Your task to perform on an android device: Play the last video I watched on Youtube Image 0: 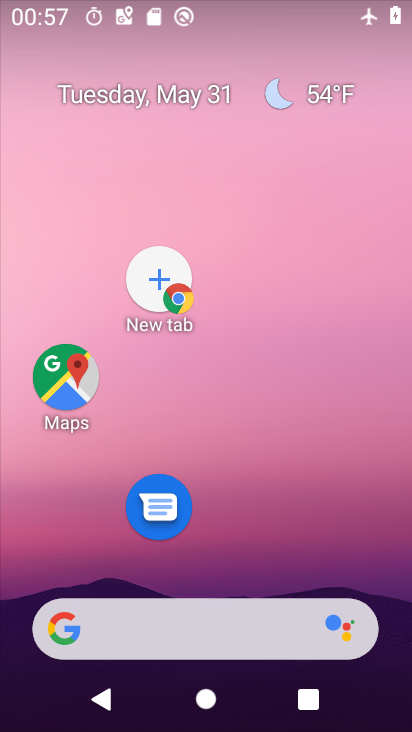
Step 0: drag from (336, 670) to (236, 66)
Your task to perform on an android device: Play the last video I watched on Youtube Image 1: 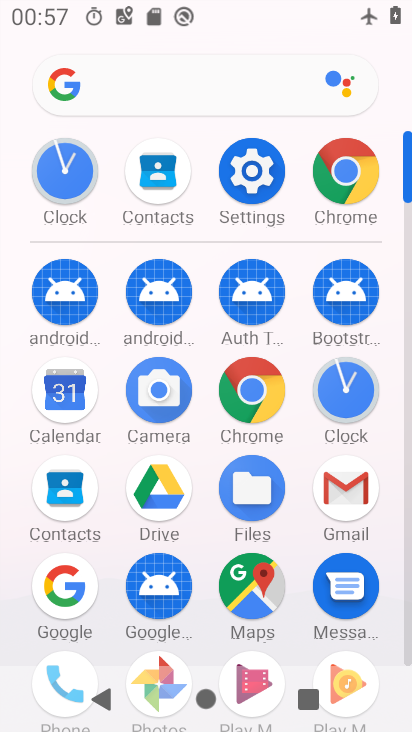
Step 1: click (249, 168)
Your task to perform on an android device: Play the last video I watched on Youtube Image 2: 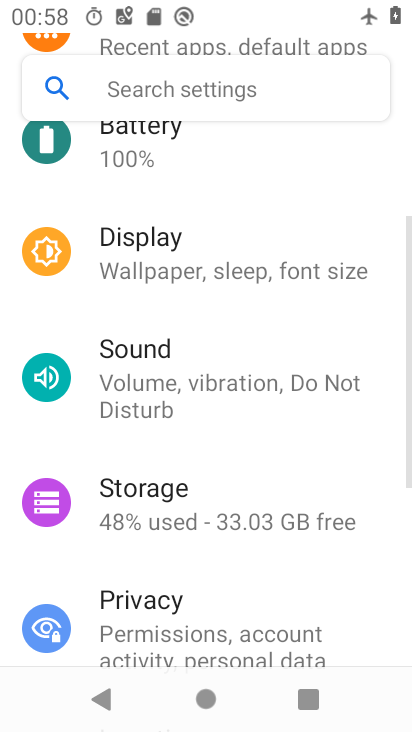
Step 2: drag from (188, 210) to (249, 620)
Your task to perform on an android device: Play the last video I watched on Youtube Image 3: 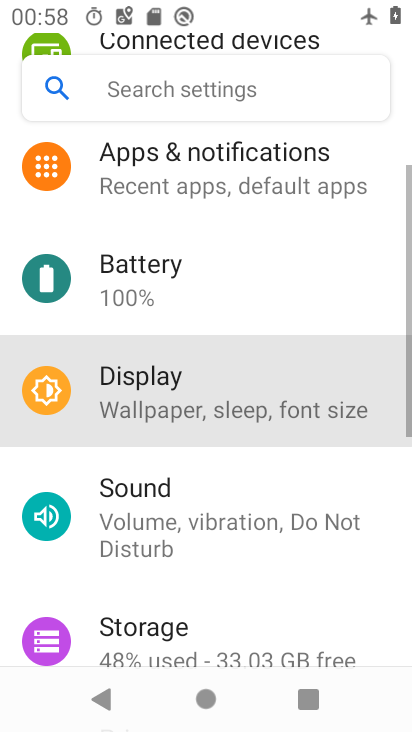
Step 3: drag from (166, 259) to (246, 488)
Your task to perform on an android device: Play the last video I watched on Youtube Image 4: 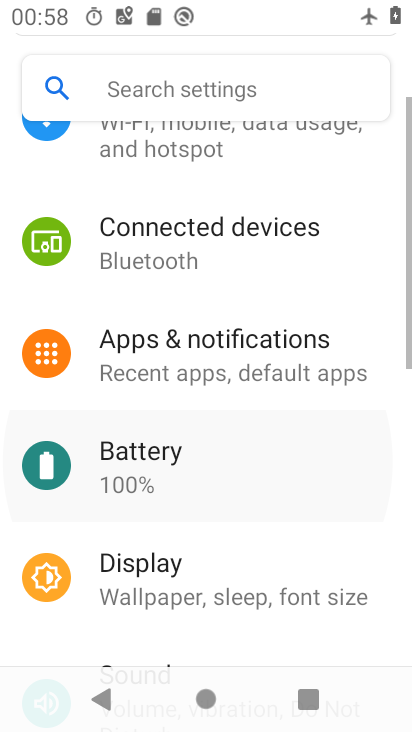
Step 4: drag from (227, 211) to (277, 441)
Your task to perform on an android device: Play the last video I watched on Youtube Image 5: 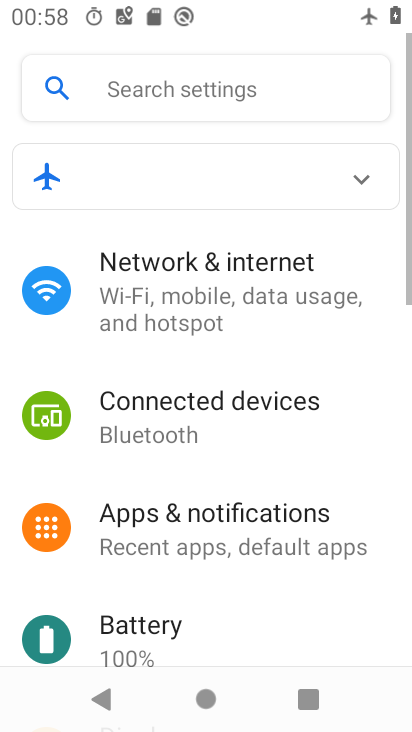
Step 5: drag from (219, 202) to (260, 454)
Your task to perform on an android device: Play the last video I watched on Youtube Image 6: 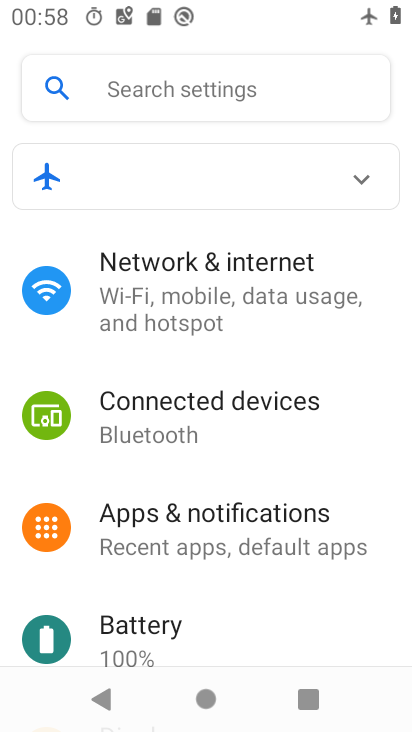
Step 6: click (200, 273)
Your task to perform on an android device: Play the last video I watched on Youtube Image 7: 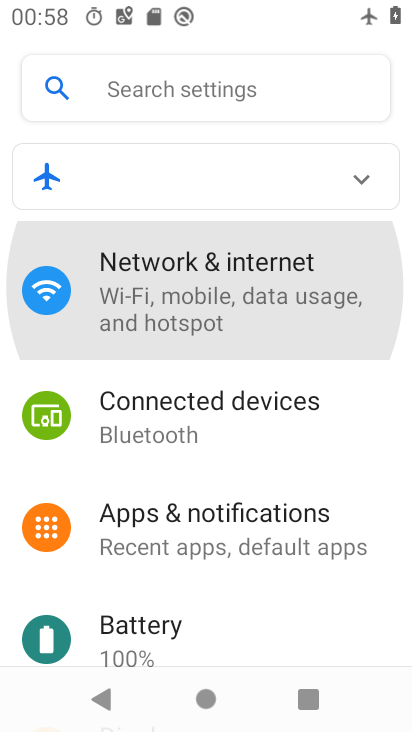
Step 7: click (205, 275)
Your task to perform on an android device: Play the last video I watched on Youtube Image 8: 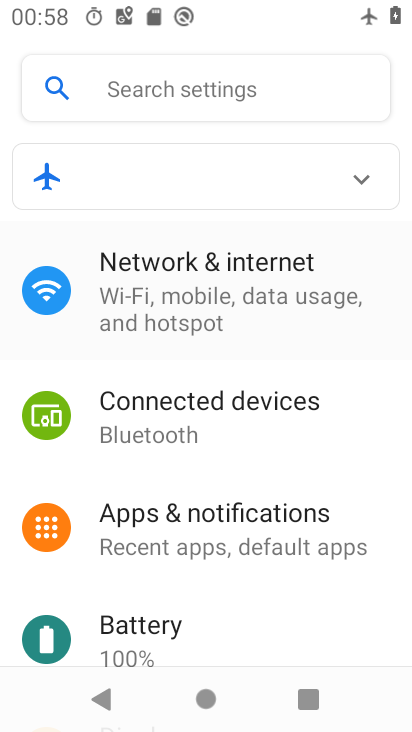
Step 8: click (207, 277)
Your task to perform on an android device: Play the last video I watched on Youtube Image 9: 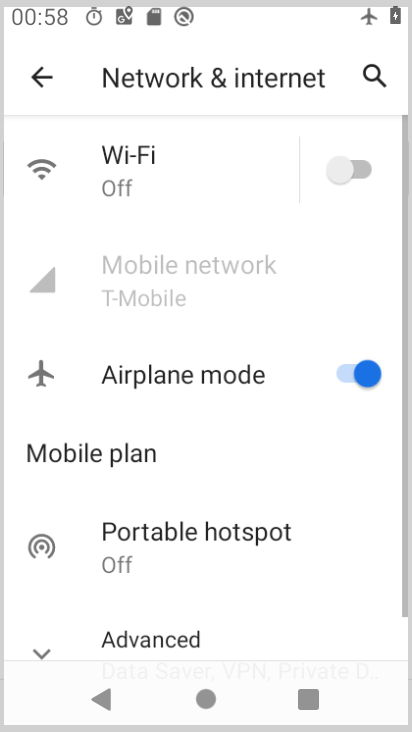
Step 9: click (207, 277)
Your task to perform on an android device: Play the last video I watched on Youtube Image 10: 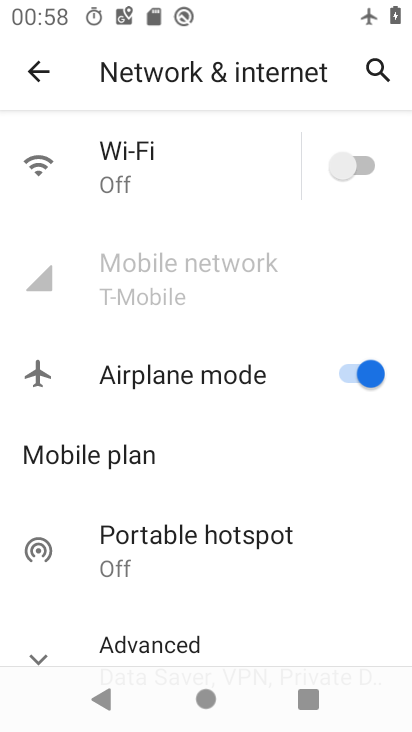
Step 10: click (341, 171)
Your task to perform on an android device: Play the last video I watched on Youtube Image 11: 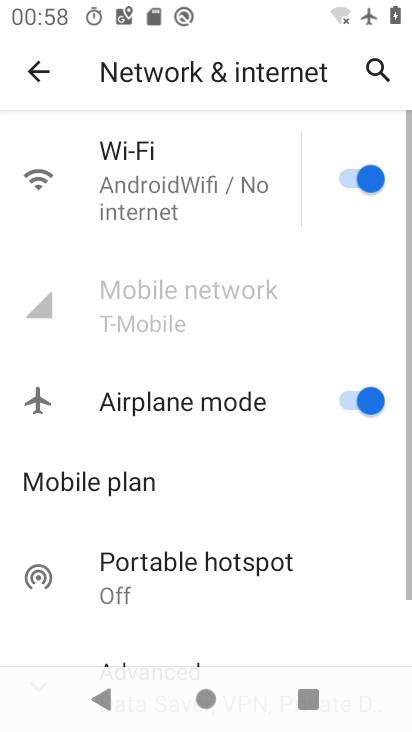
Step 11: click (367, 382)
Your task to perform on an android device: Play the last video I watched on Youtube Image 12: 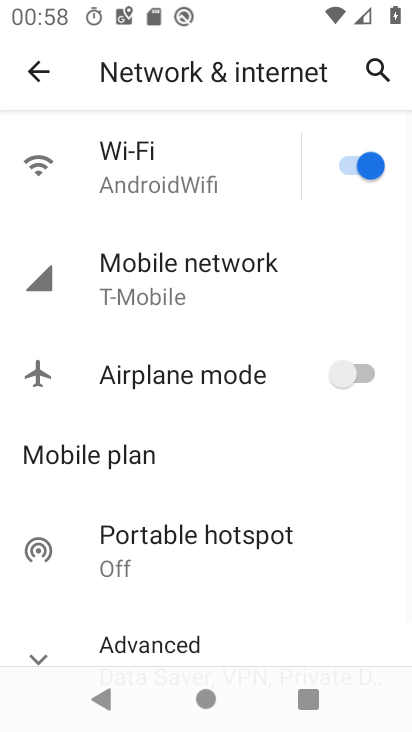
Step 12: press back button
Your task to perform on an android device: Play the last video I watched on Youtube Image 13: 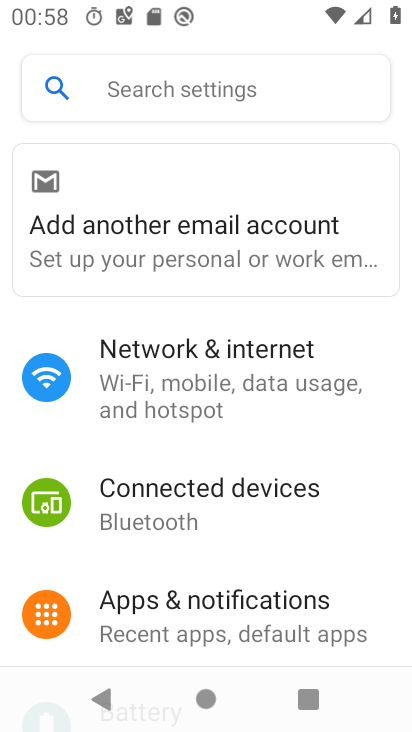
Step 13: press home button
Your task to perform on an android device: Play the last video I watched on Youtube Image 14: 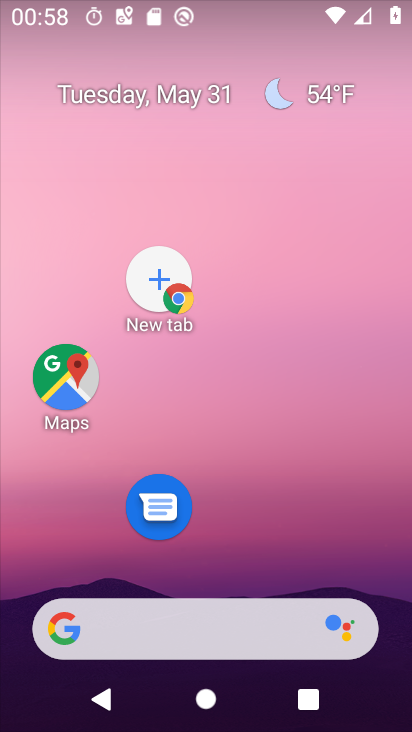
Step 14: drag from (262, 582) to (201, 1)
Your task to perform on an android device: Play the last video I watched on Youtube Image 15: 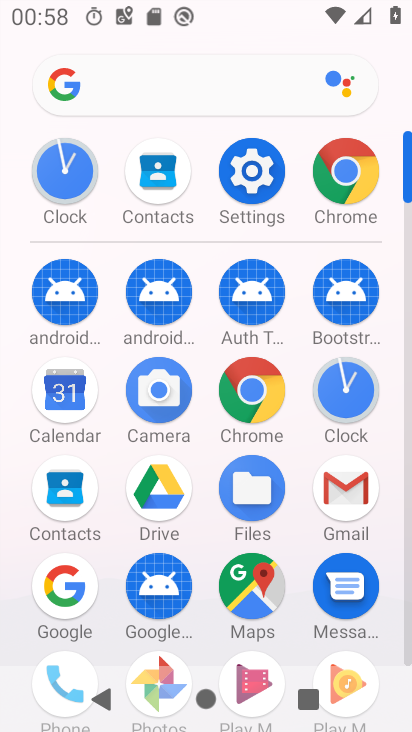
Step 15: drag from (279, 490) to (278, 199)
Your task to perform on an android device: Play the last video I watched on Youtube Image 16: 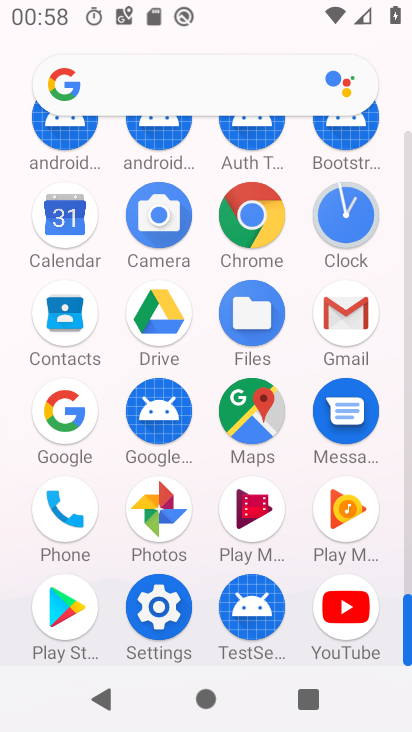
Step 16: drag from (323, 470) to (311, 162)
Your task to perform on an android device: Play the last video I watched on Youtube Image 17: 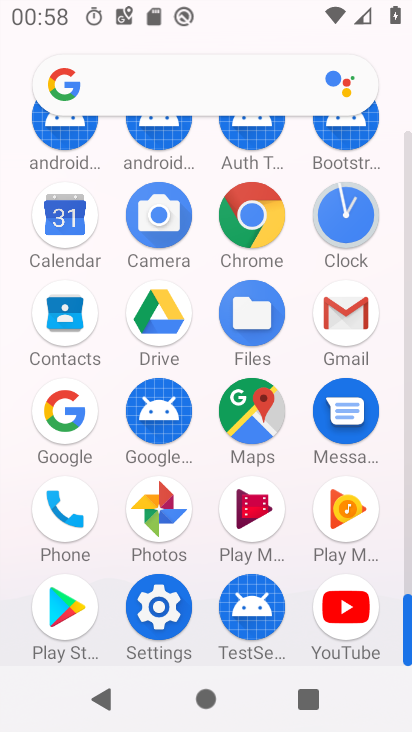
Step 17: click (346, 608)
Your task to perform on an android device: Play the last video I watched on Youtube Image 18: 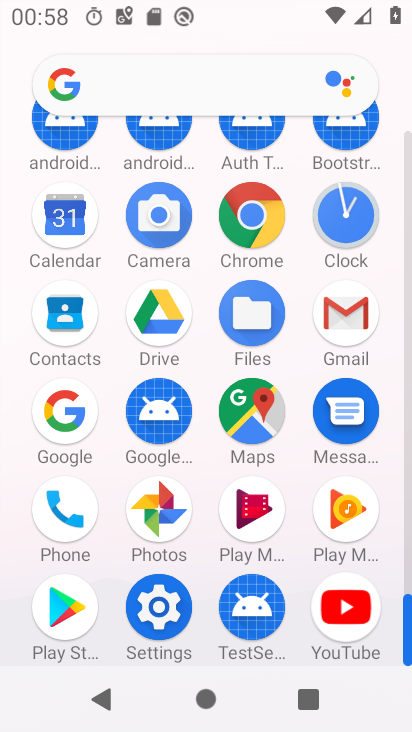
Step 18: click (345, 608)
Your task to perform on an android device: Play the last video I watched on Youtube Image 19: 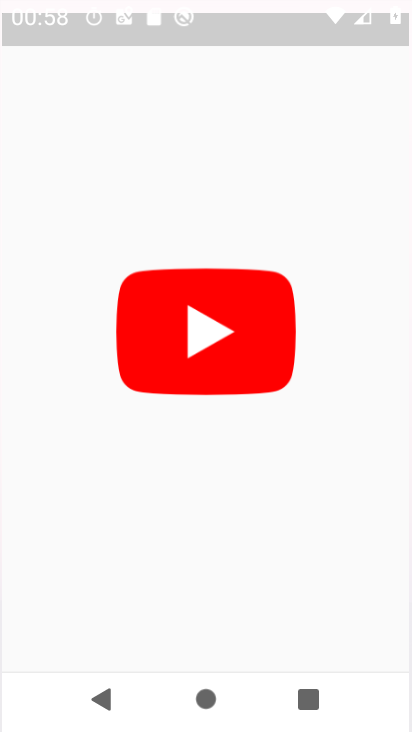
Step 19: click (347, 603)
Your task to perform on an android device: Play the last video I watched on Youtube Image 20: 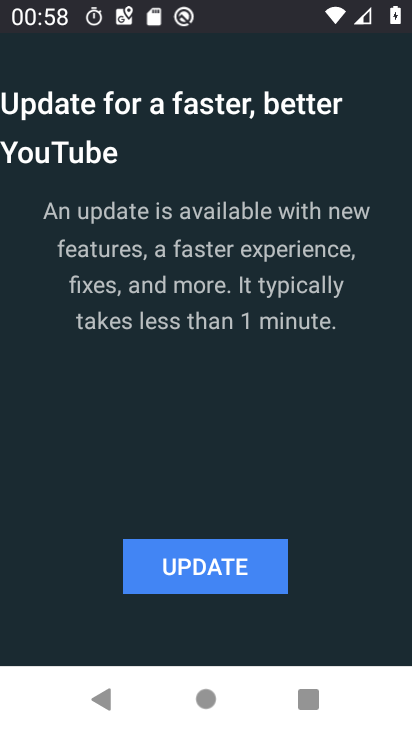
Step 20: click (190, 569)
Your task to perform on an android device: Play the last video I watched on Youtube Image 21: 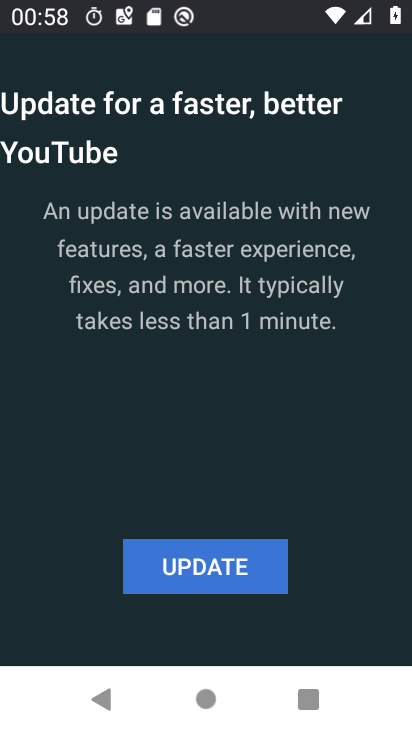
Step 21: click (190, 565)
Your task to perform on an android device: Play the last video I watched on Youtube Image 22: 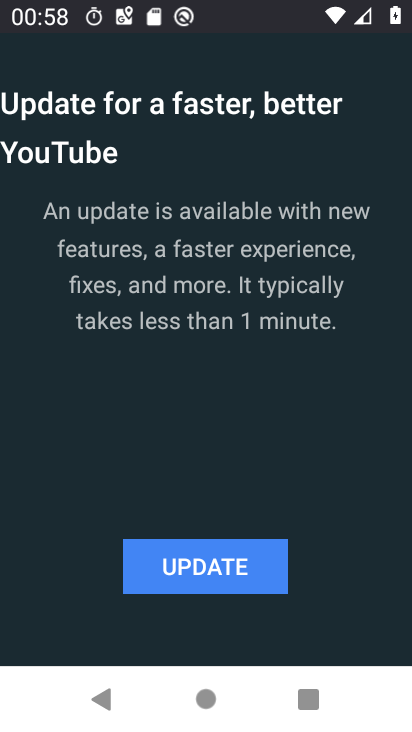
Step 22: click (192, 564)
Your task to perform on an android device: Play the last video I watched on Youtube Image 23: 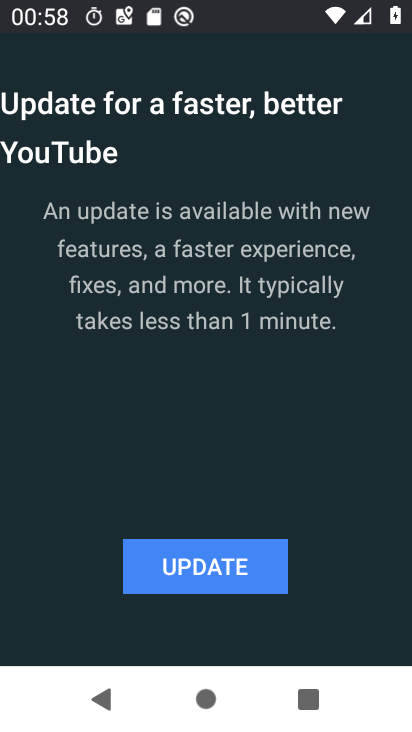
Step 23: click (193, 562)
Your task to perform on an android device: Play the last video I watched on Youtube Image 24: 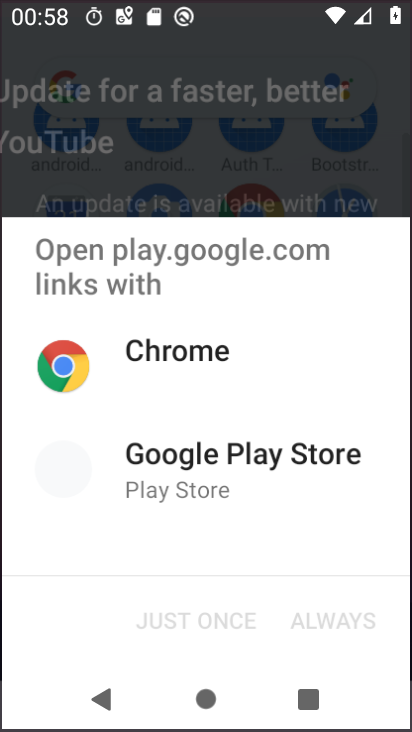
Step 24: click (195, 557)
Your task to perform on an android device: Play the last video I watched on Youtube Image 25: 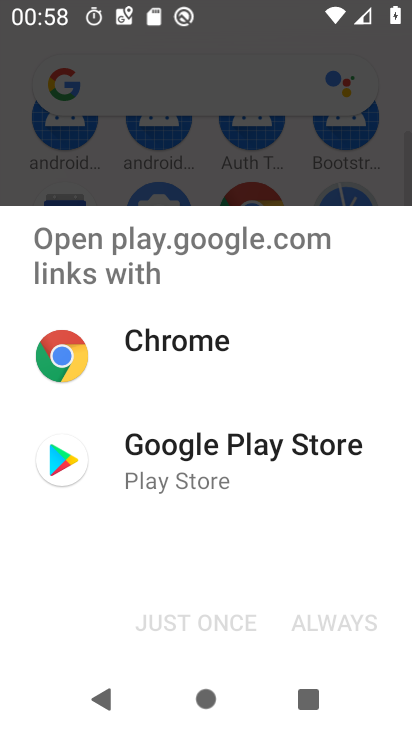
Step 25: click (175, 486)
Your task to perform on an android device: Play the last video I watched on Youtube Image 26: 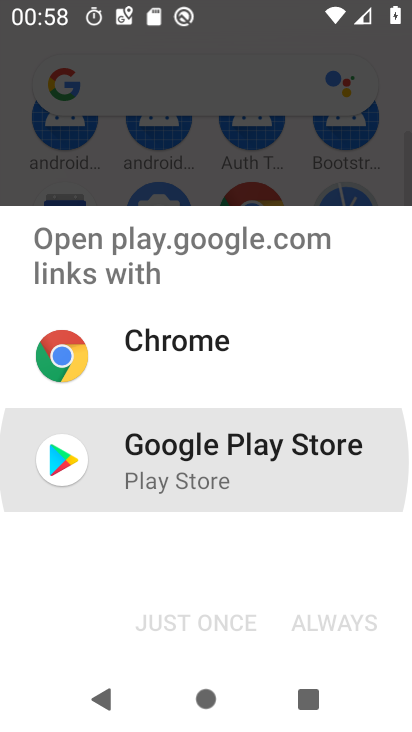
Step 26: click (175, 485)
Your task to perform on an android device: Play the last video I watched on Youtube Image 27: 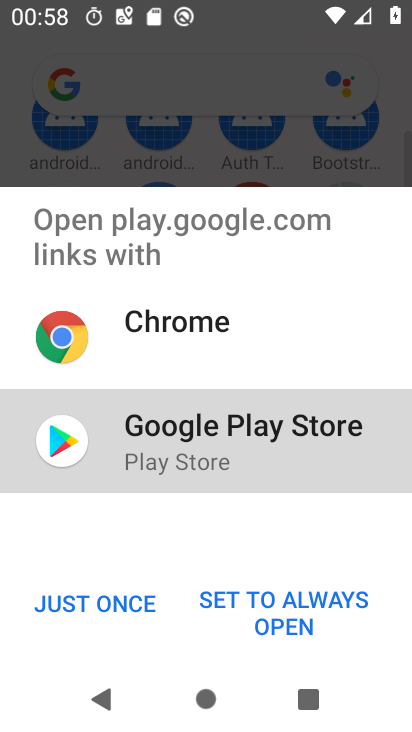
Step 27: click (175, 484)
Your task to perform on an android device: Play the last video I watched on Youtube Image 28: 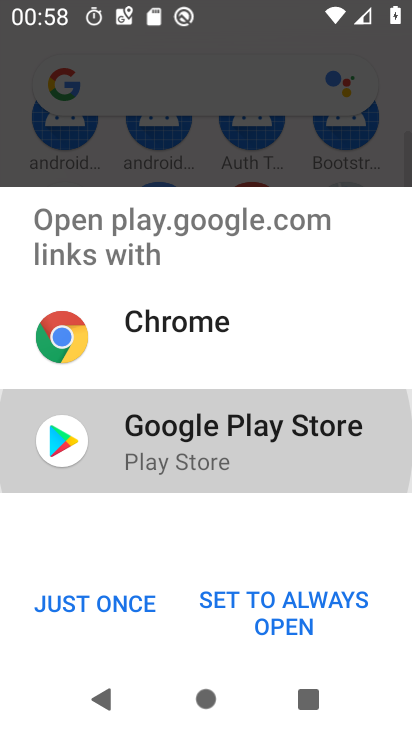
Step 28: click (168, 469)
Your task to perform on an android device: Play the last video I watched on Youtube Image 29: 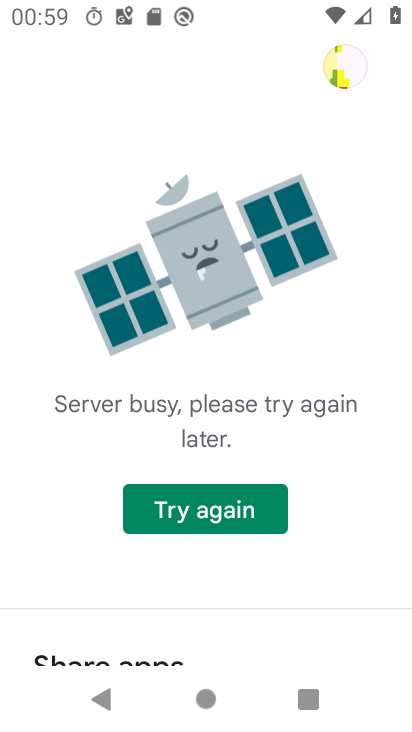
Step 29: task complete